Your task to perform on an android device: What's on my calendar tomorrow? Image 0: 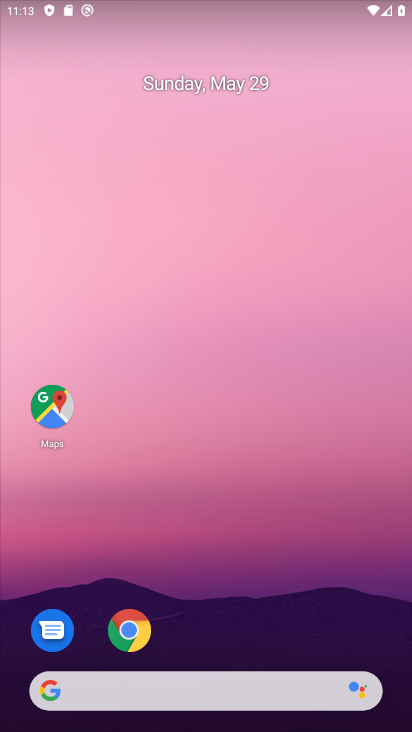
Step 0: drag from (125, 731) to (227, 0)
Your task to perform on an android device: What's on my calendar tomorrow? Image 1: 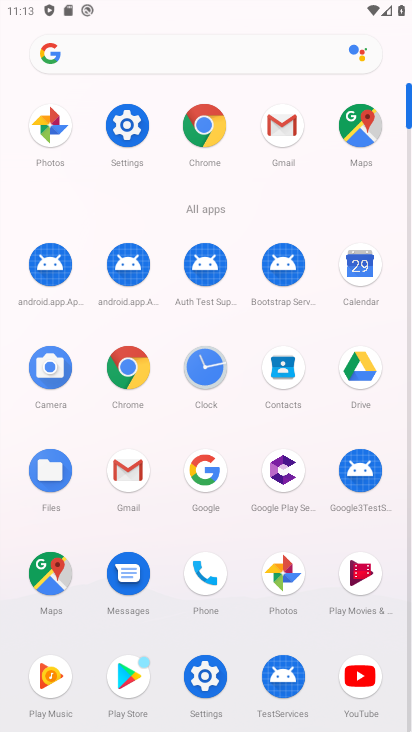
Step 1: click (361, 277)
Your task to perform on an android device: What's on my calendar tomorrow? Image 2: 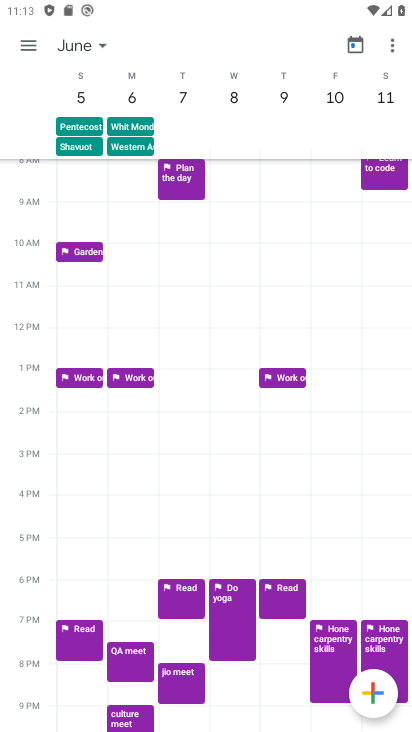
Step 2: drag from (60, 72) to (385, 83)
Your task to perform on an android device: What's on my calendar tomorrow? Image 3: 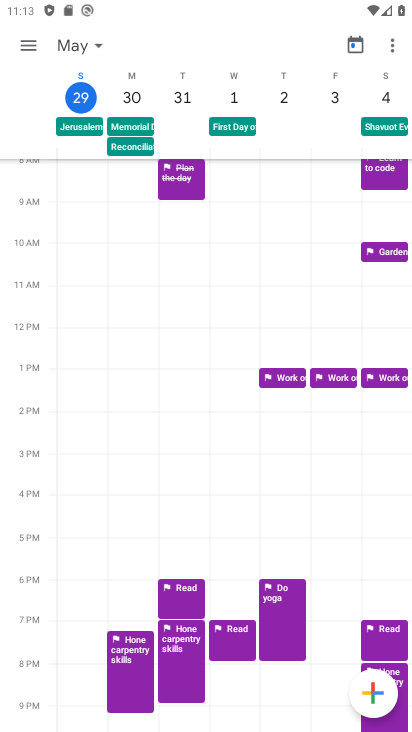
Step 3: click (128, 93)
Your task to perform on an android device: What's on my calendar tomorrow? Image 4: 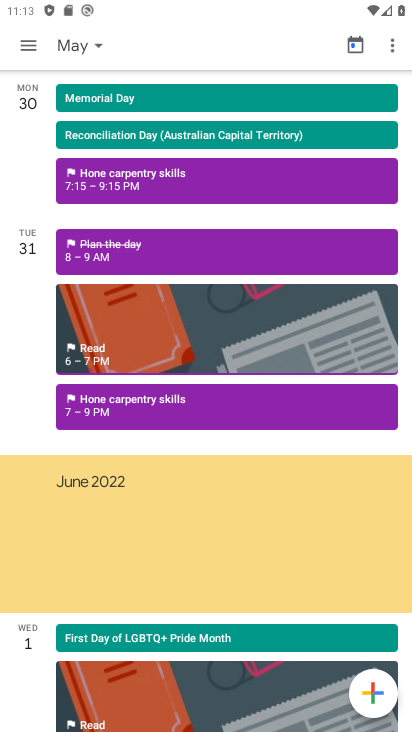
Step 4: task complete